Your task to perform on an android device: turn vacation reply on in the gmail app Image 0: 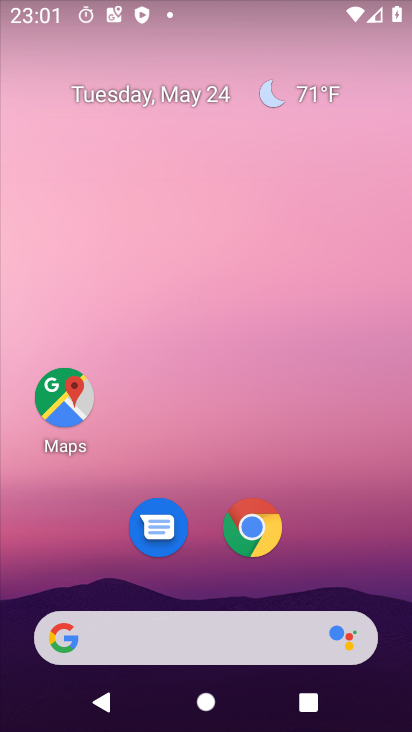
Step 0: drag from (230, 308) to (230, 37)
Your task to perform on an android device: turn vacation reply on in the gmail app Image 1: 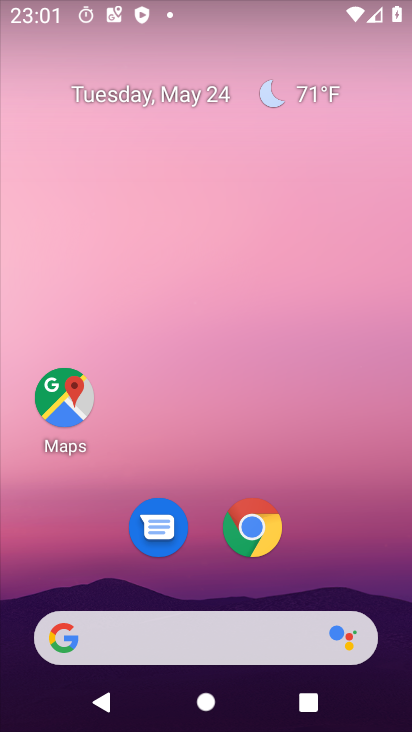
Step 1: drag from (211, 512) to (234, 31)
Your task to perform on an android device: turn vacation reply on in the gmail app Image 2: 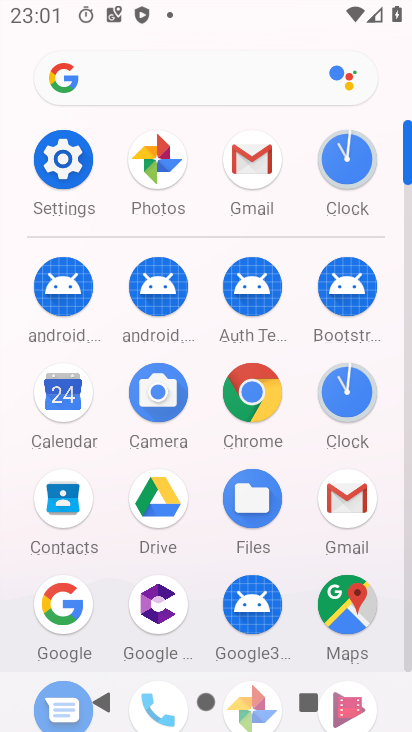
Step 2: click (338, 497)
Your task to perform on an android device: turn vacation reply on in the gmail app Image 3: 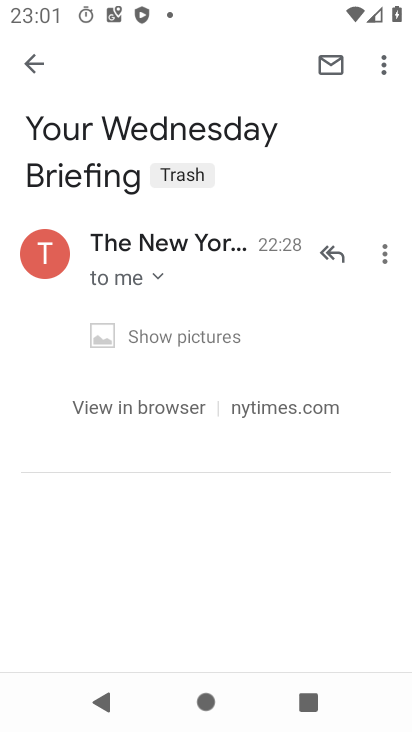
Step 3: click (30, 68)
Your task to perform on an android device: turn vacation reply on in the gmail app Image 4: 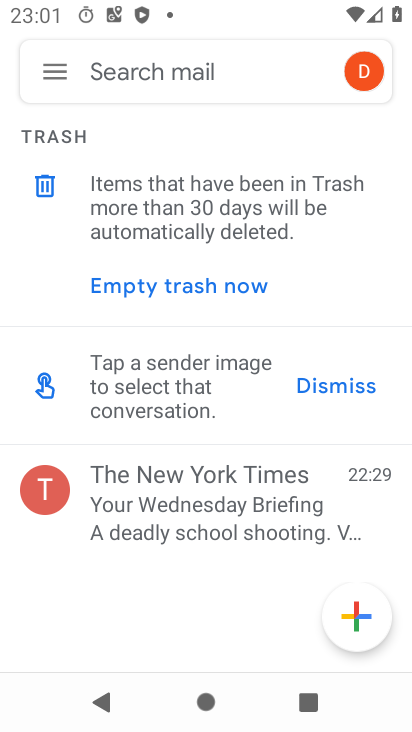
Step 4: click (50, 69)
Your task to perform on an android device: turn vacation reply on in the gmail app Image 5: 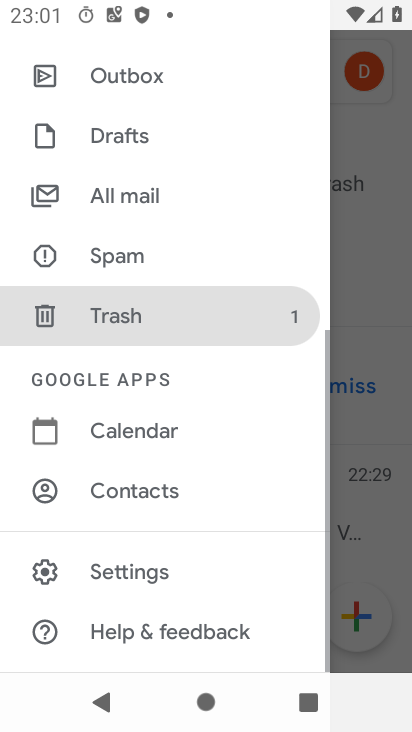
Step 5: click (129, 578)
Your task to perform on an android device: turn vacation reply on in the gmail app Image 6: 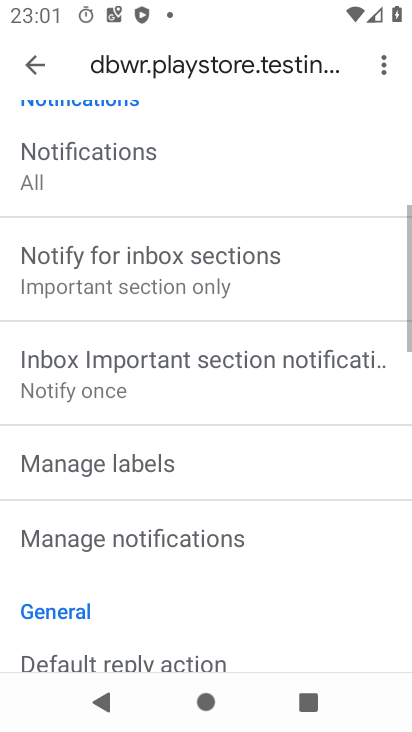
Step 6: drag from (165, 596) to (210, 224)
Your task to perform on an android device: turn vacation reply on in the gmail app Image 7: 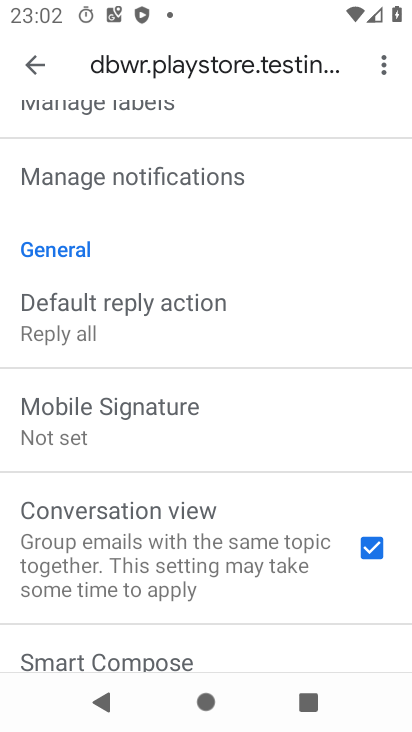
Step 7: drag from (259, 528) to (268, 86)
Your task to perform on an android device: turn vacation reply on in the gmail app Image 8: 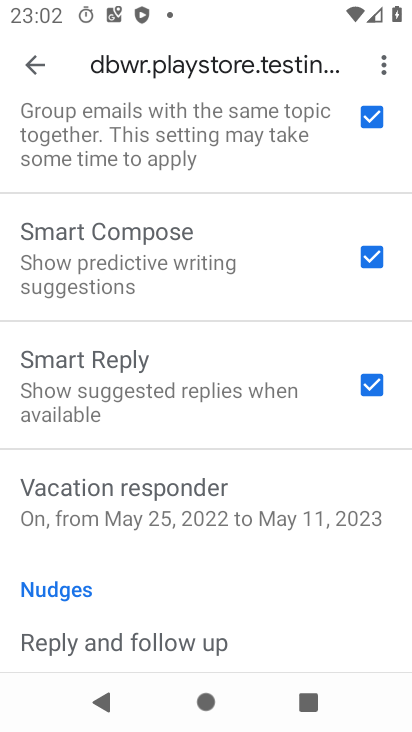
Step 8: click (326, 503)
Your task to perform on an android device: turn vacation reply on in the gmail app Image 9: 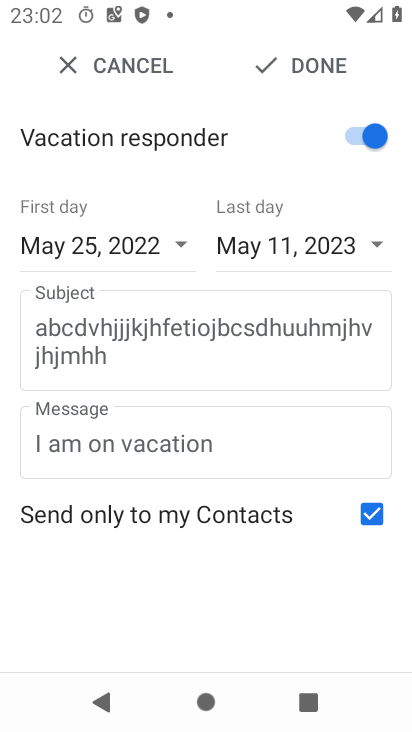
Step 9: click (338, 72)
Your task to perform on an android device: turn vacation reply on in the gmail app Image 10: 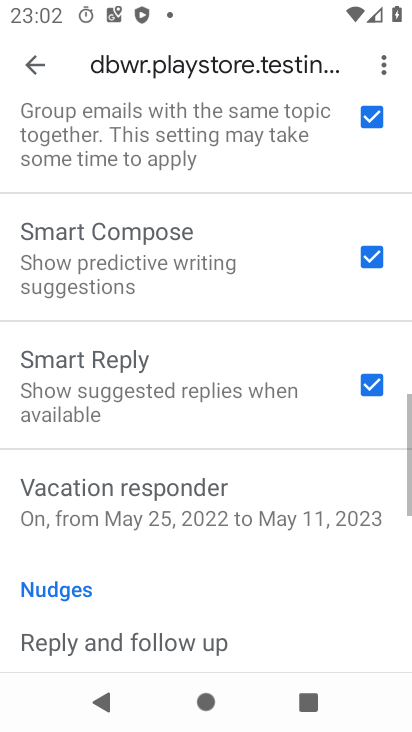
Step 10: task complete